Your task to perform on an android device: clear all cookies in the chrome app Image 0: 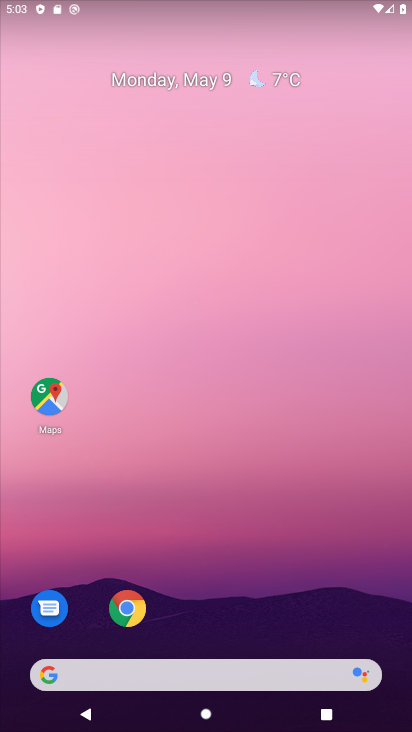
Step 0: click (135, 614)
Your task to perform on an android device: clear all cookies in the chrome app Image 1: 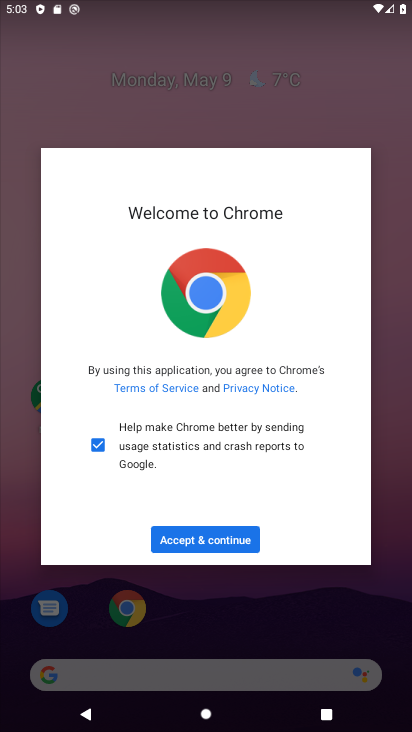
Step 1: click (229, 545)
Your task to perform on an android device: clear all cookies in the chrome app Image 2: 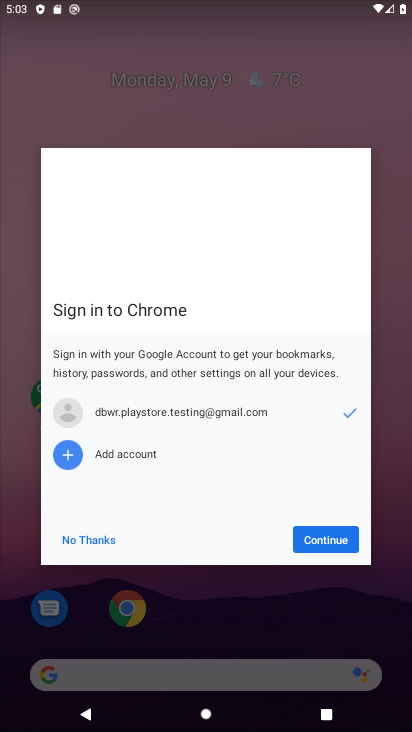
Step 2: click (344, 541)
Your task to perform on an android device: clear all cookies in the chrome app Image 3: 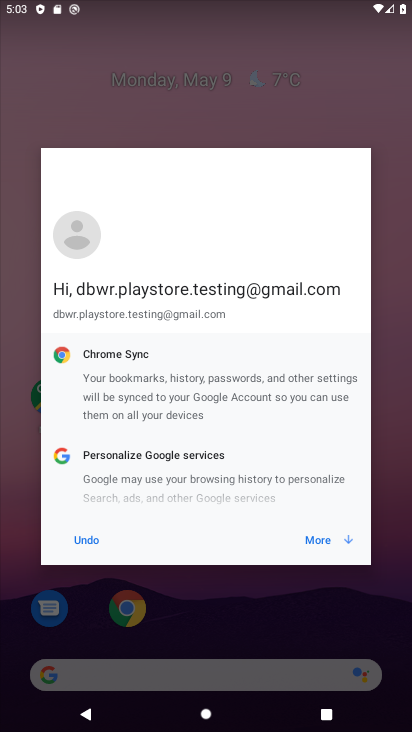
Step 3: click (344, 539)
Your task to perform on an android device: clear all cookies in the chrome app Image 4: 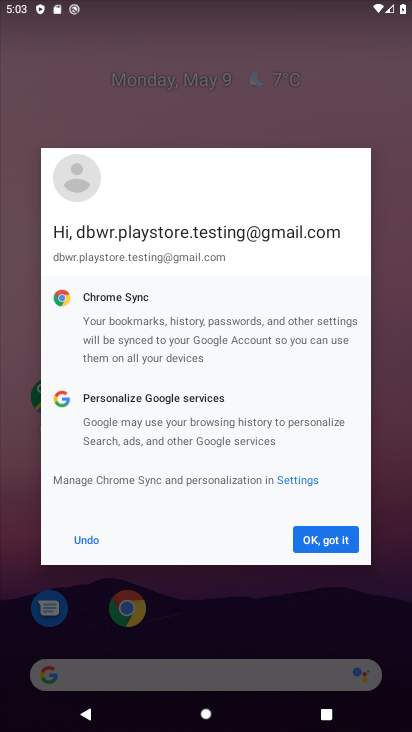
Step 4: click (344, 539)
Your task to perform on an android device: clear all cookies in the chrome app Image 5: 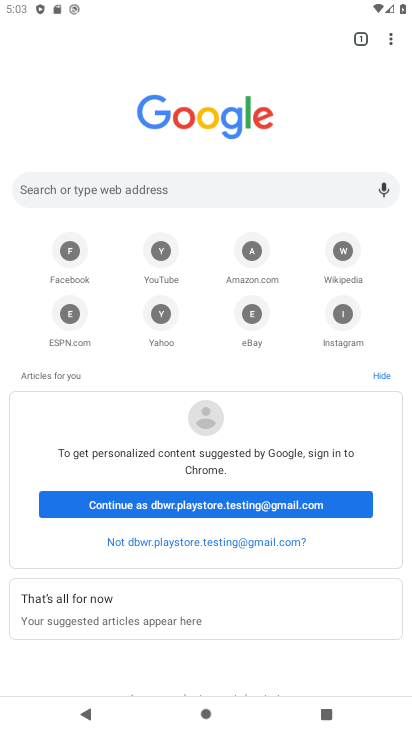
Step 5: click (391, 42)
Your task to perform on an android device: clear all cookies in the chrome app Image 6: 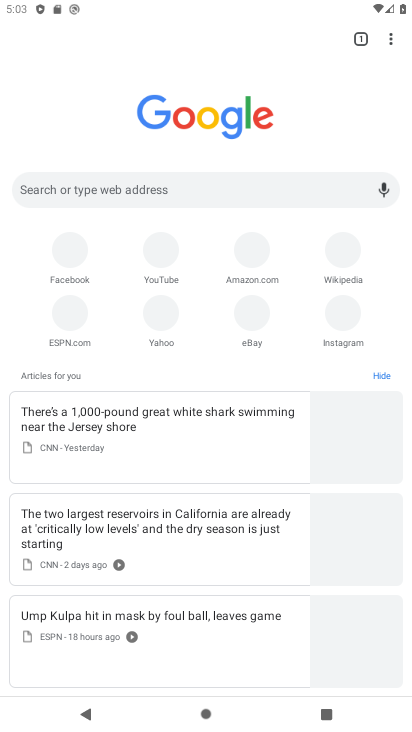
Step 6: click (391, 42)
Your task to perform on an android device: clear all cookies in the chrome app Image 7: 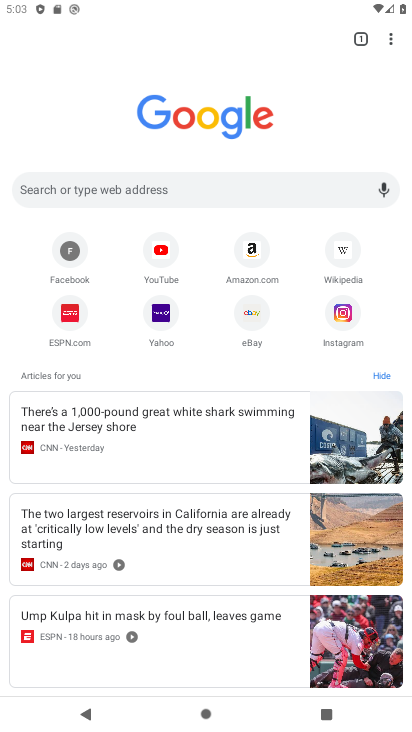
Step 7: click (392, 33)
Your task to perform on an android device: clear all cookies in the chrome app Image 8: 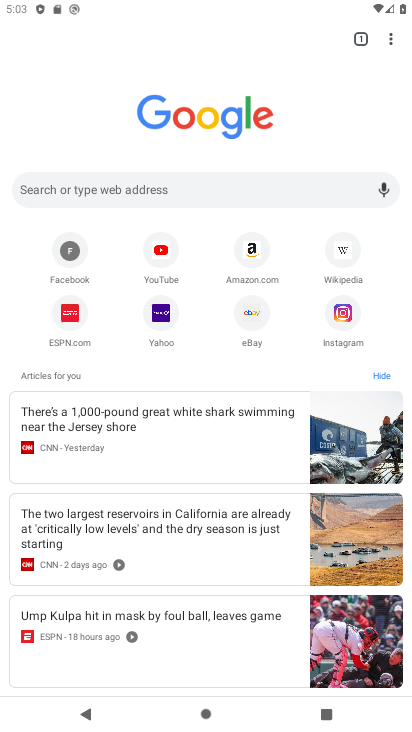
Step 8: click (379, 39)
Your task to perform on an android device: clear all cookies in the chrome app Image 9: 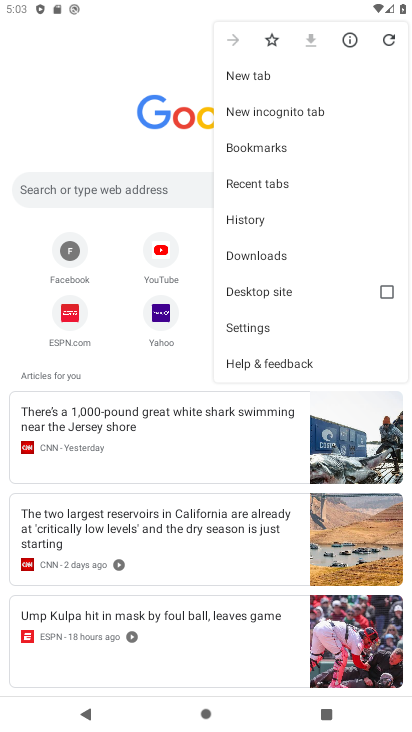
Step 9: click (252, 318)
Your task to perform on an android device: clear all cookies in the chrome app Image 10: 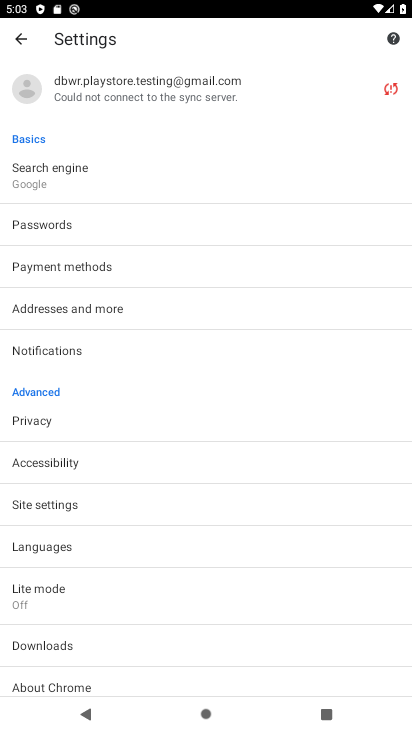
Step 10: click (88, 503)
Your task to perform on an android device: clear all cookies in the chrome app Image 11: 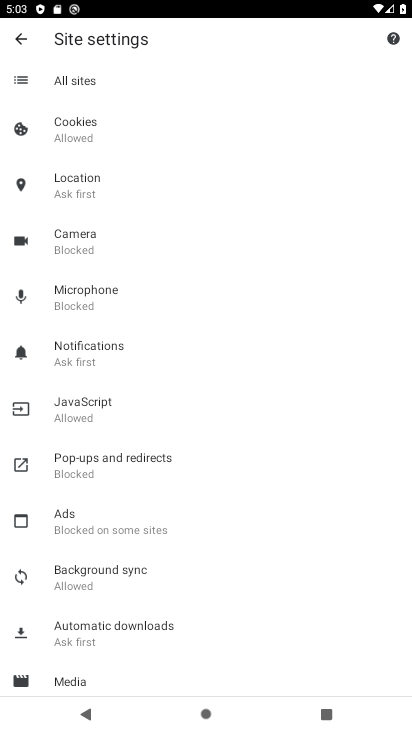
Step 11: click (106, 138)
Your task to perform on an android device: clear all cookies in the chrome app Image 12: 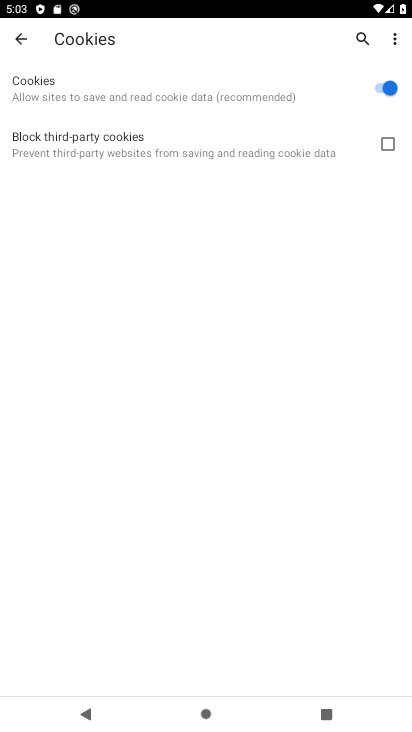
Step 12: task complete